Your task to perform on an android device: Open the phone app and click the voicemail tab. Image 0: 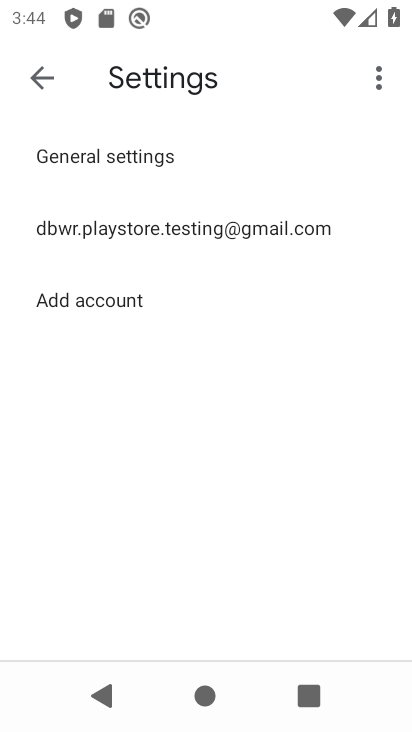
Step 0: press back button
Your task to perform on an android device: Open the phone app and click the voicemail tab. Image 1: 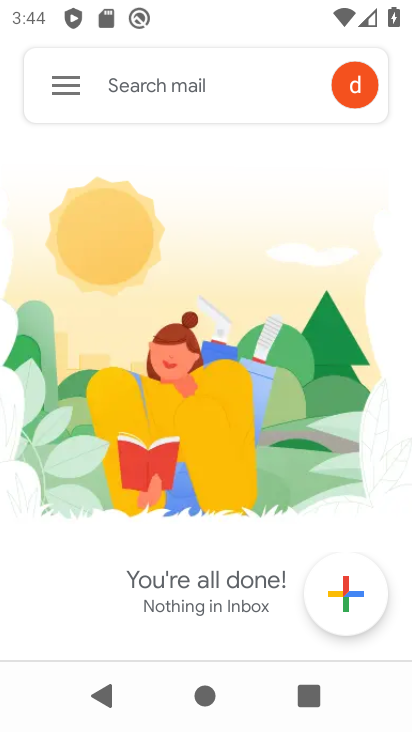
Step 1: press back button
Your task to perform on an android device: Open the phone app and click the voicemail tab. Image 2: 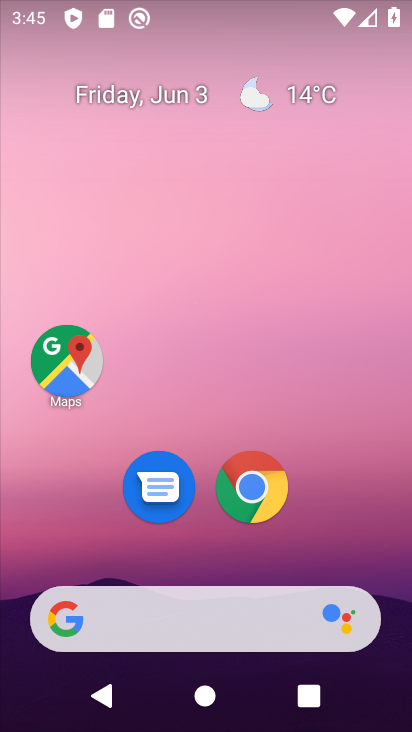
Step 2: drag from (348, 5) to (262, 12)
Your task to perform on an android device: Open the phone app and click the voicemail tab. Image 3: 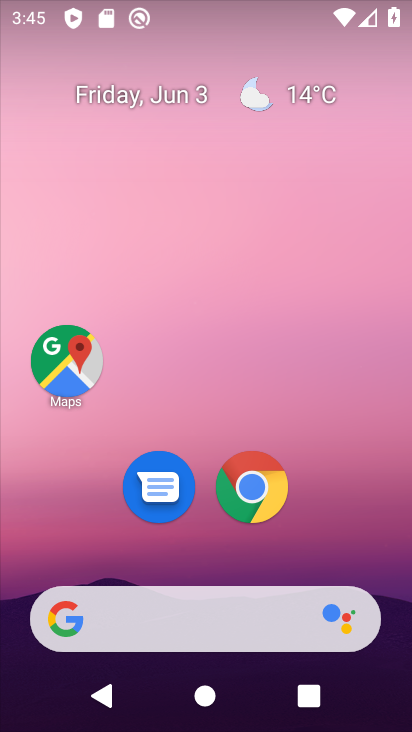
Step 3: drag from (220, 573) to (235, 30)
Your task to perform on an android device: Open the phone app and click the voicemail tab. Image 4: 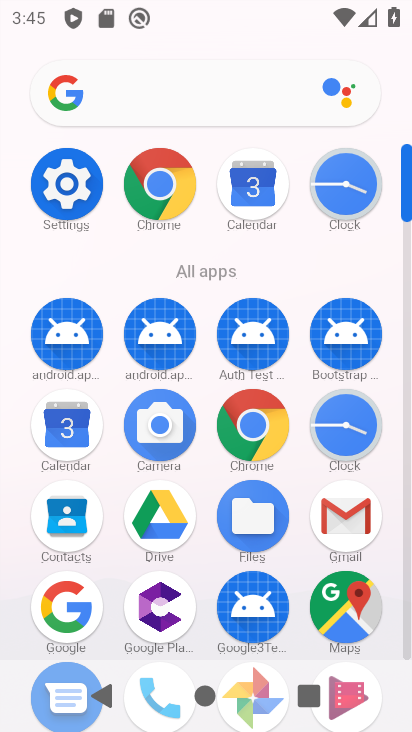
Step 4: drag from (215, 629) to (279, 126)
Your task to perform on an android device: Open the phone app and click the voicemail tab. Image 5: 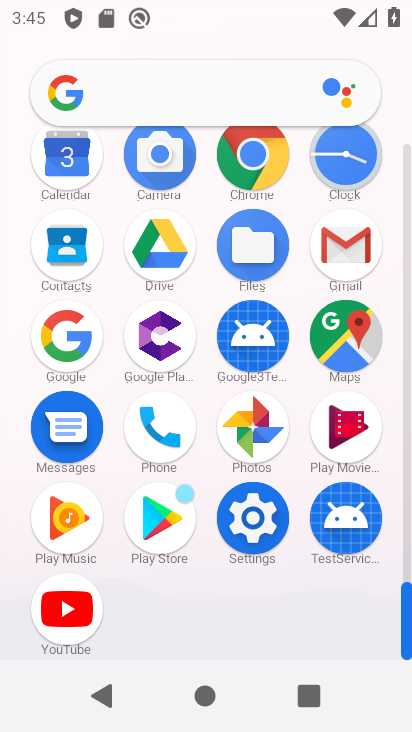
Step 5: click (154, 430)
Your task to perform on an android device: Open the phone app and click the voicemail tab. Image 6: 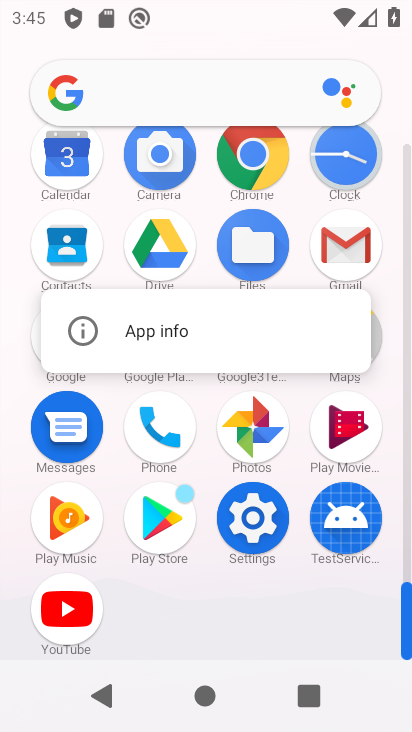
Step 6: click (175, 418)
Your task to perform on an android device: Open the phone app and click the voicemail tab. Image 7: 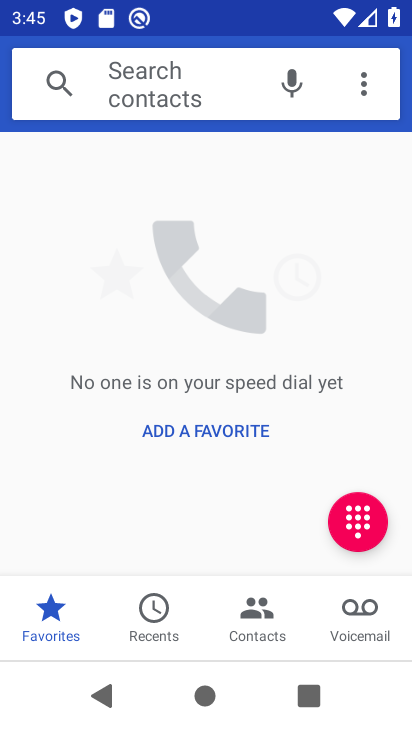
Step 7: click (366, 602)
Your task to perform on an android device: Open the phone app and click the voicemail tab. Image 8: 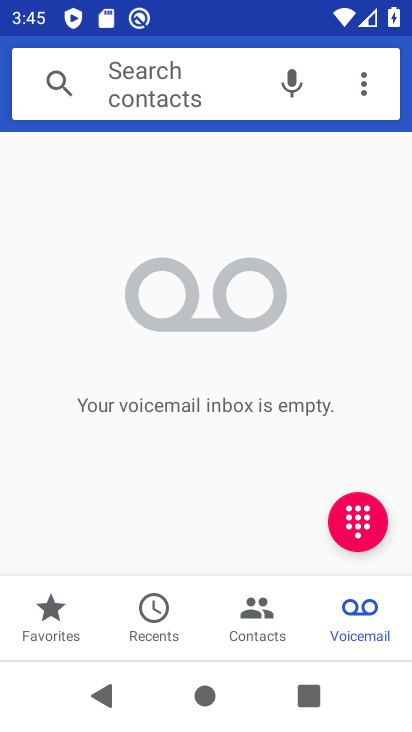
Step 8: task complete